Your task to perform on an android device: change notification settings in the gmail app Image 0: 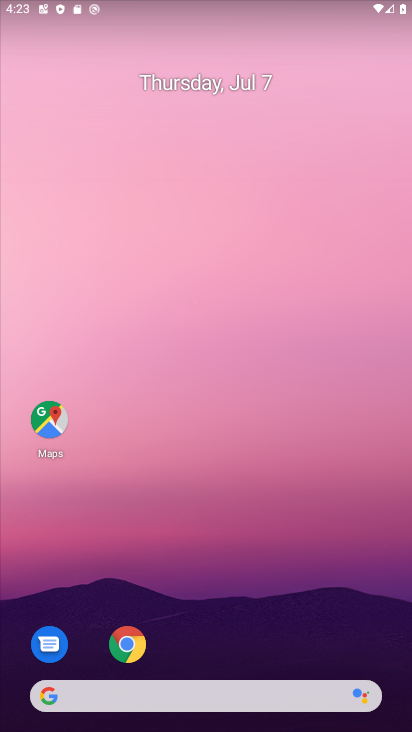
Step 0: drag from (219, 553) to (266, 136)
Your task to perform on an android device: change notification settings in the gmail app Image 1: 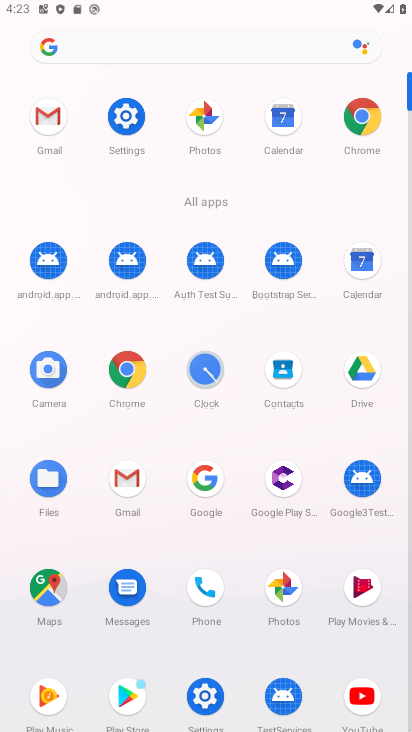
Step 1: click (115, 495)
Your task to perform on an android device: change notification settings in the gmail app Image 2: 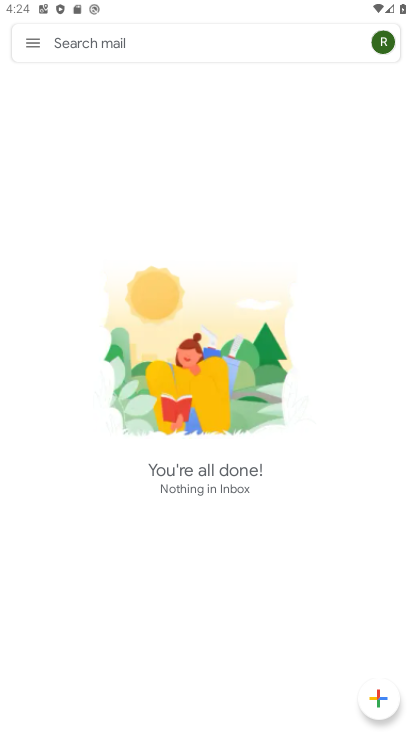
Step 2: click (20, 42)
Your task to perform on an android device: change notification settings in the gmail app Image 3: 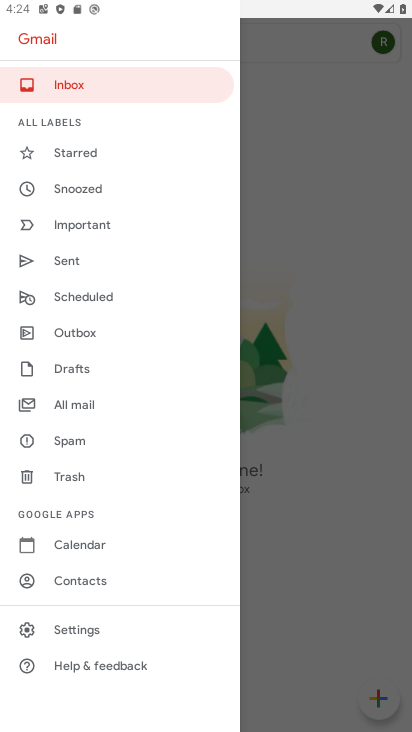
Step 3: click (77, 634)
Your task to perform on an android device: change notification settings in the gmail app Image 4: 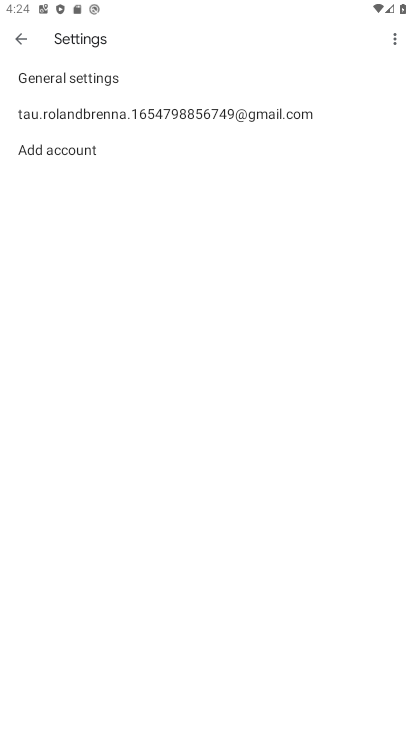
Step 4: click (99, 77)
Your task to perform on an android device: change notification settings in the gmail app Image 5: 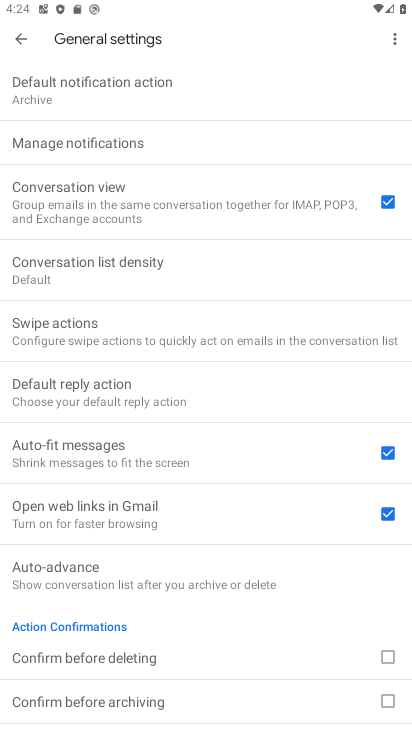
Step 5: click (83, 147)
Your task to perform on an android device: change notification settings in the gmail app Image 6: 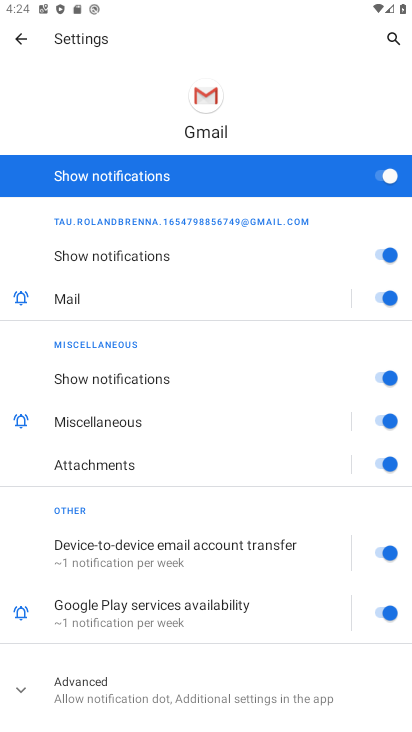
Step 6: click (371, 179)
Your task to perform on an android device: change notification settings in the gmail app Image 7: 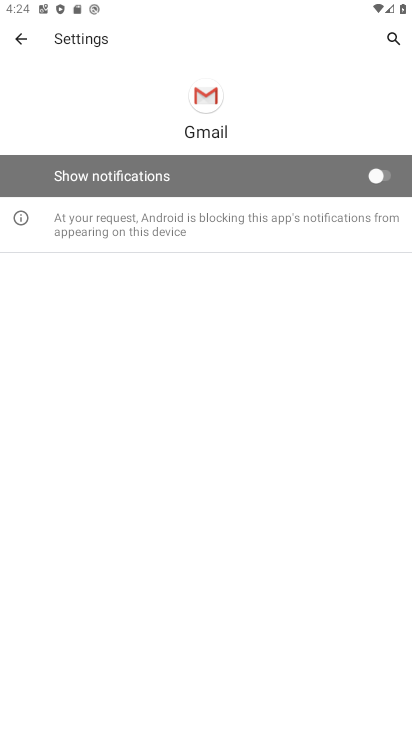
Step 7: task complete